Your task to perform on an android device: Search for pizza restaurants on Maps Image 0: 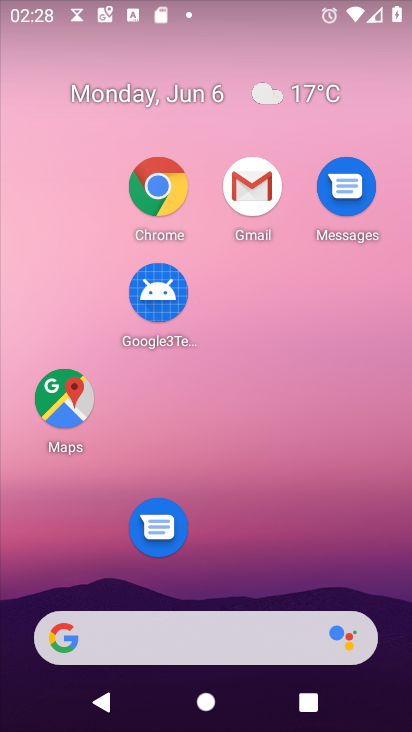
Step 0: click (65, 379)
Your task to perform on an android device: Search for pizza restaurants on Maps Image 1: 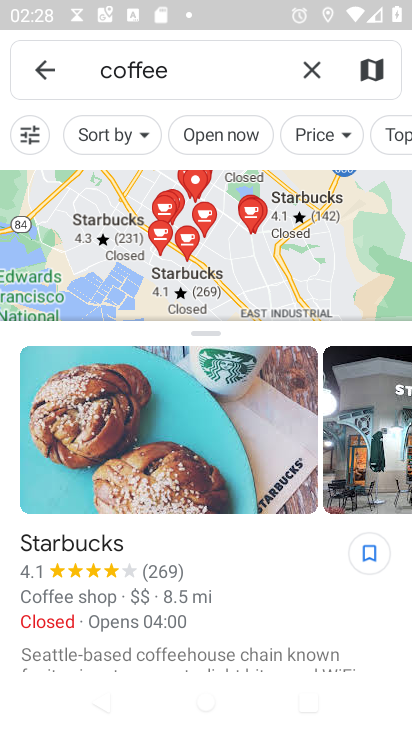
Step 1: click (302, 62)
Your task to perform on an android device: Search for pizza restaurants on Maps Image 2: 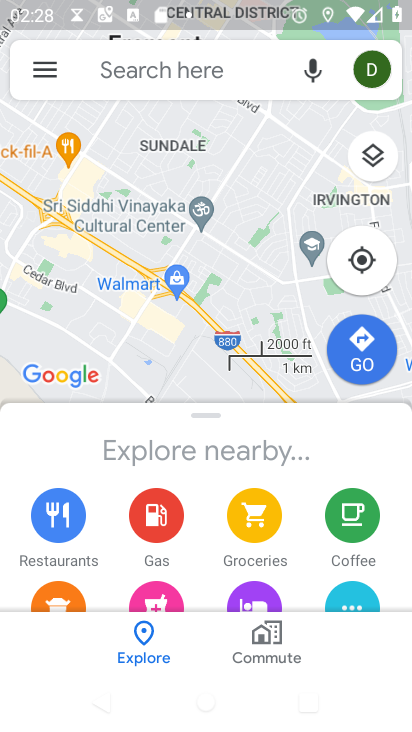
Step 2: click (302, 62)
Your task to perform on an android device: Search for pizza restaurants on Maps Image 3: 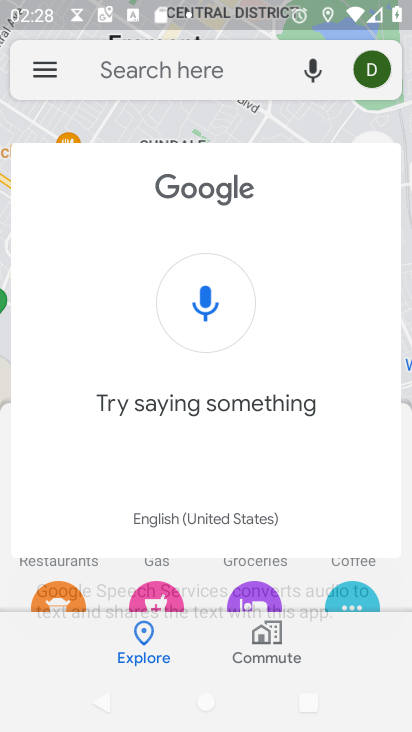
Step 3: click (133, 67)
Your task to perform on an android device: Search for pizza restaurants on Maps Image 4: 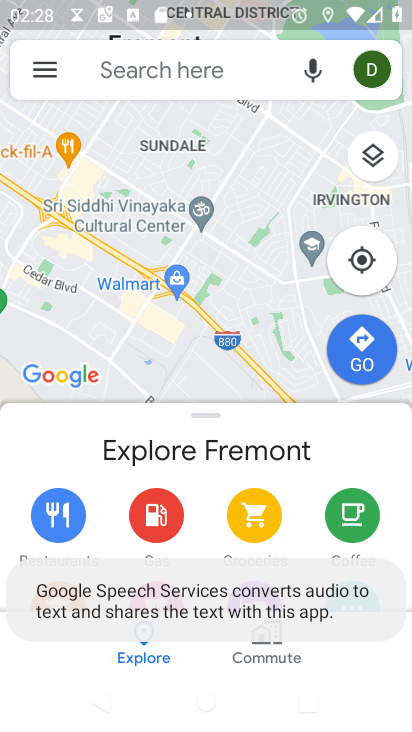
Step 4: click (133, 67)
Your task to perform on an android device: Search for pizza restaurants on Maps Image 5: 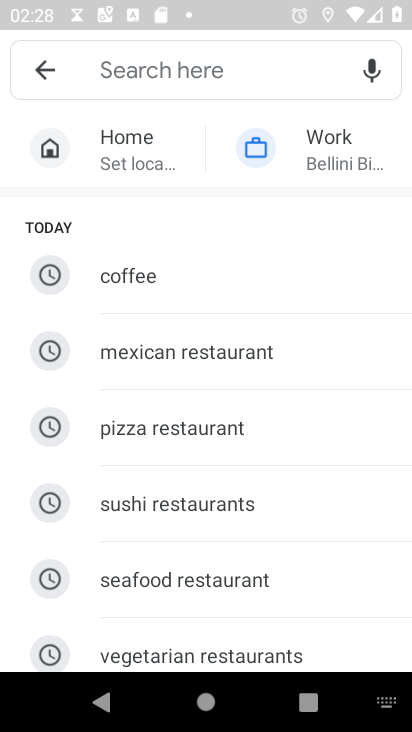
Step 5: click (150, 417)
Your task to perform on an android device: Search for pizza restaurants on Maps Image 6: 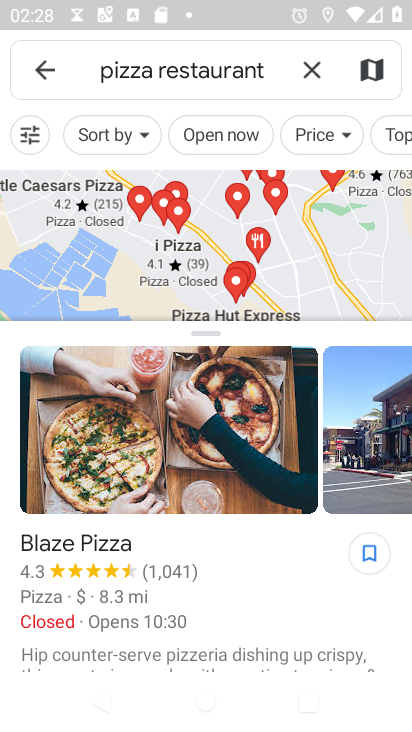
Step 6: task complete